Your task to perform on an android device: Open Yahoo.com Image 0: 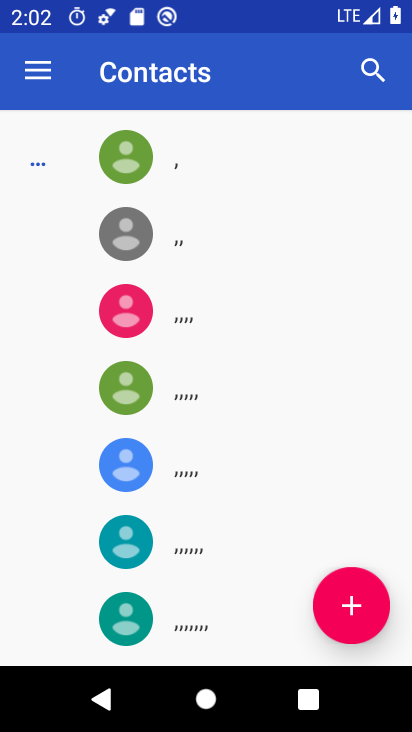
Step 0: press home button
Your task to perform on an android device: Open Yahoo.com Image 1: 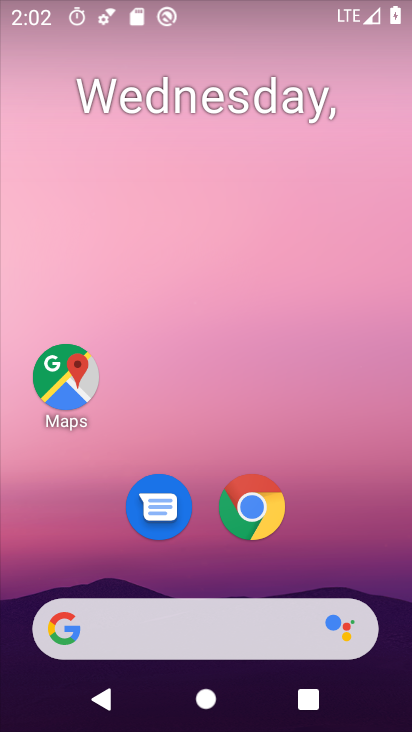
Step 1: click (257, 499)
Your task to perform on an android device: Open Yahoo.com Image 2: 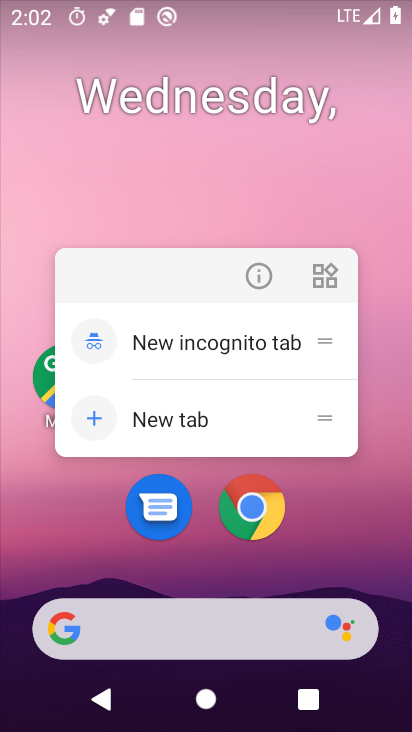
Step 2: click (257, 499)
Your task to perform on an android device: Open Yahoo.com Image 3: 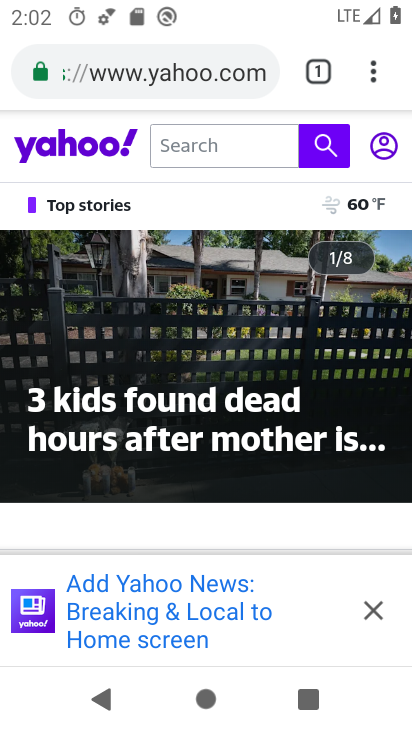
Step 3: task complete